Your task to perform on an android device: Go to internet settings Image 0: 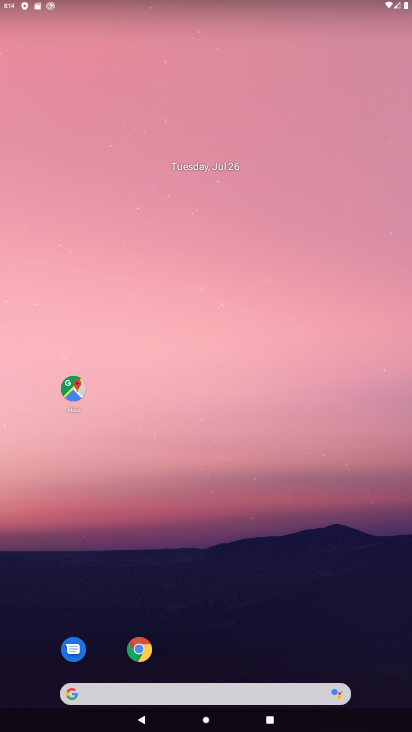
Step 0: drag from (152, 2) to (221, 670)
Your task to perform on an android device: Go to internet settings Image 1: 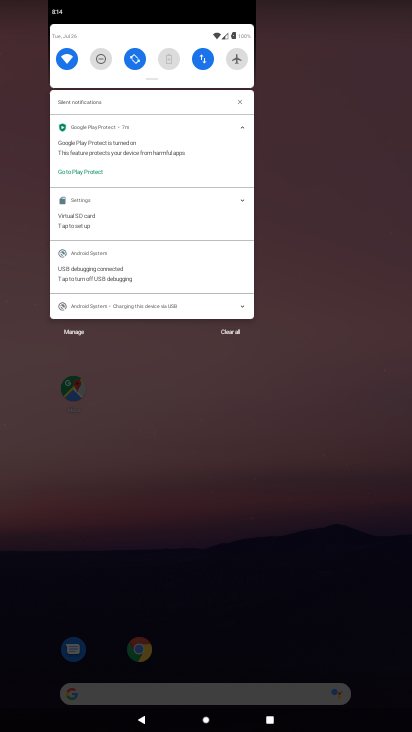
Step 1: click (195, 65)
Your task to perform on an android device: Go to internet settings Image 2: 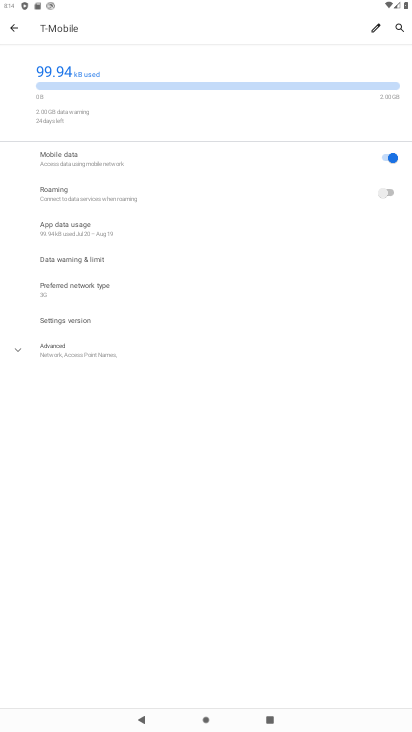
Step 2: task complete